Your task to perform on an android device: turn off location Image 0: 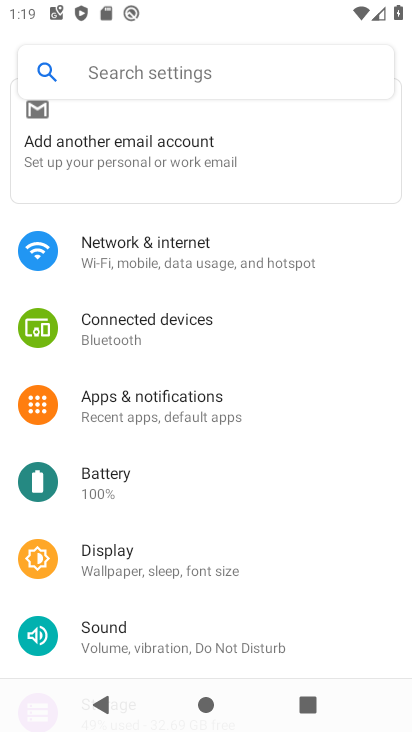
Step 0: press home button
Your task to perform on an android device: turn off location Image 1: 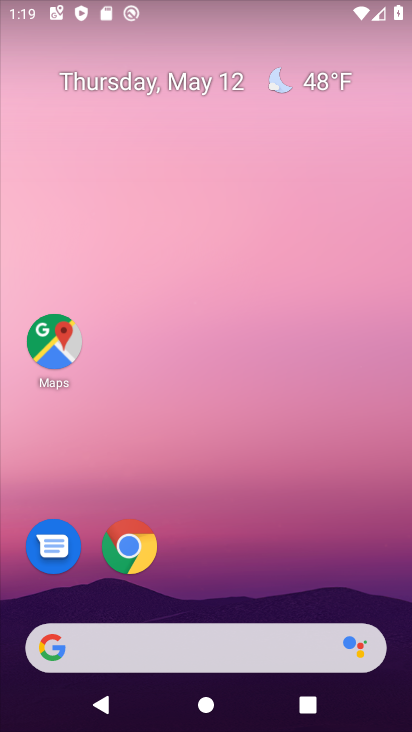
Step 1: drag from (237, 656) to (282, 94)
Your task to perform on an android device: turn off location Image 2: 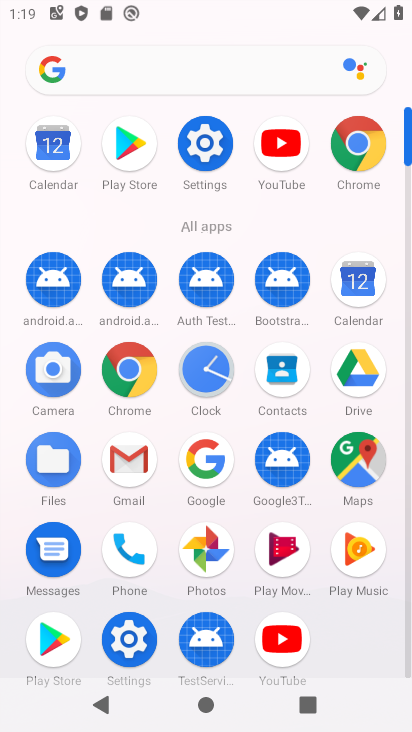
Step 2: click (197, 145)
Your task to perform on an android device: turn off location Image 3: 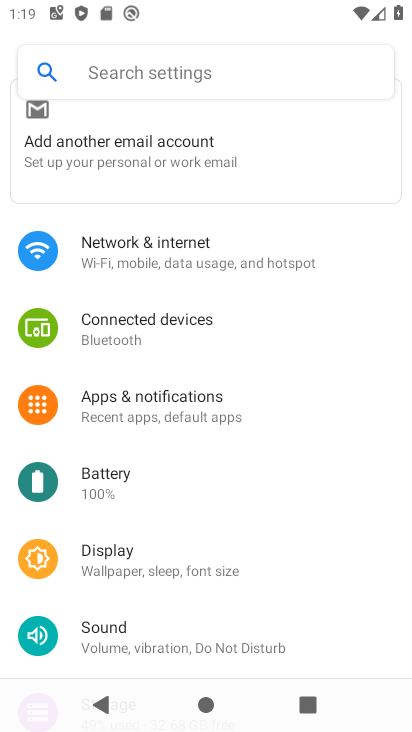
Step 3: drag from (206, 531) to (306, 140)
Your task to perform on an android device: turn off location Image 4: 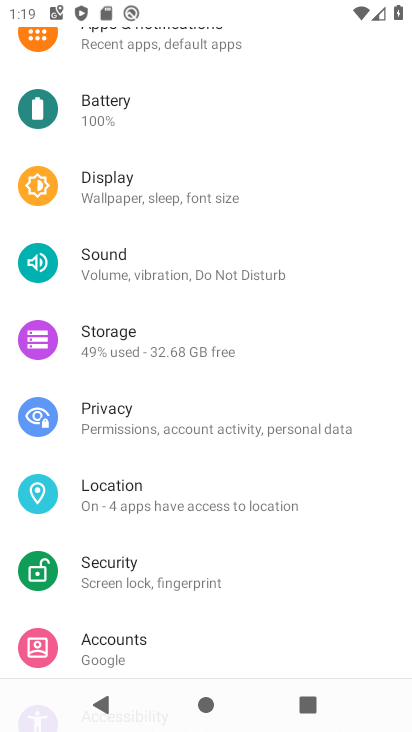
Step 4: click (153, 498)
Your task to perform on an android device: turn off location Image 5: 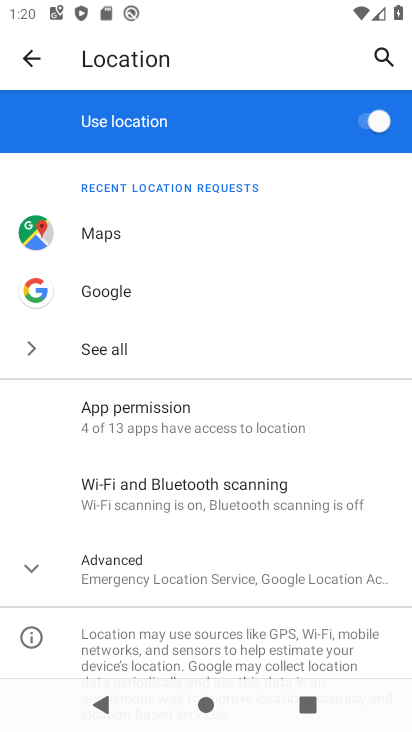
Step 5: click (364, 121)
Your task to perform on an android device: turn off location Image 6: 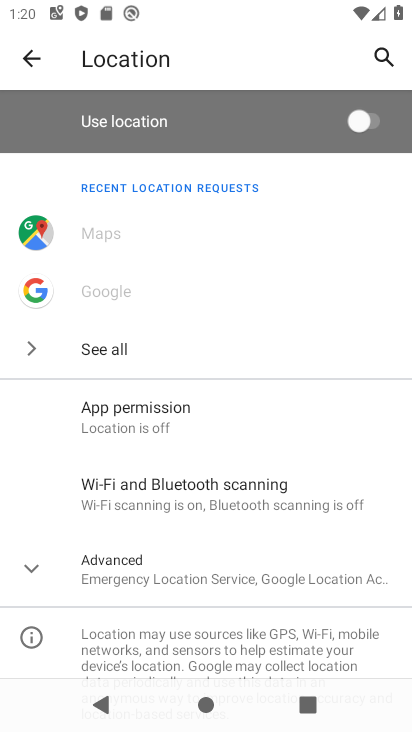
Step 6: task complete